Your task to perform on an android device: turn on translation in the chrome app Image 0: 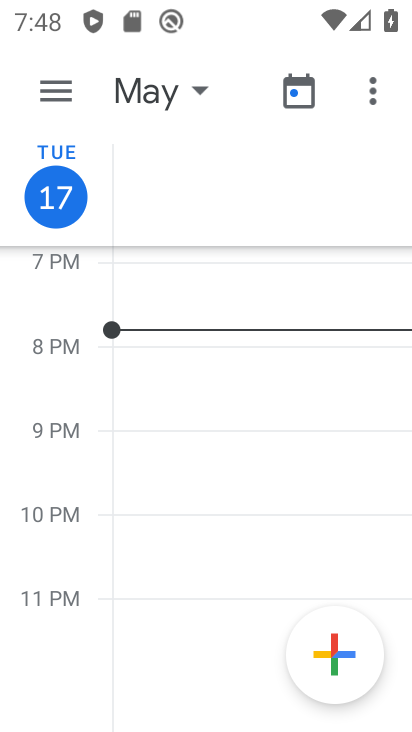
Step 0: press home button
Your task to perform on an android device: turn on translation in the chrome app Image 1: 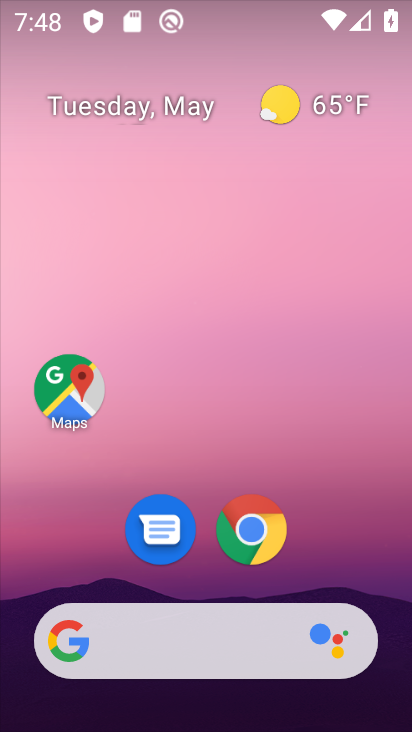
Step 1: click (248, 522)
Your task to perform on an android device: turn on translation in the chrome app Image 2: 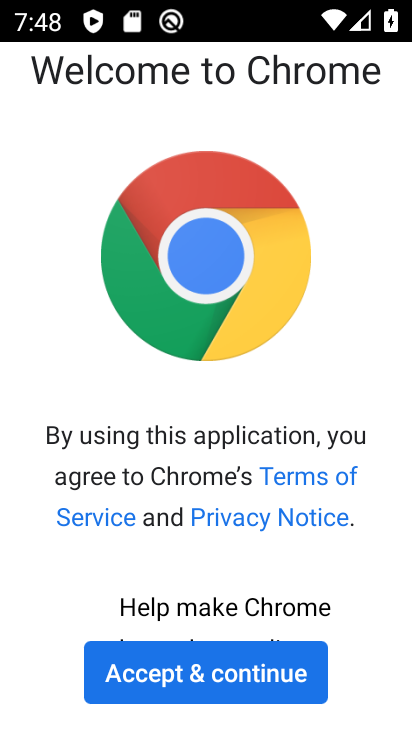
Step 2: click (234, 652)
Your task to perform on an android device: turn on translation in the chrome app Image 3: 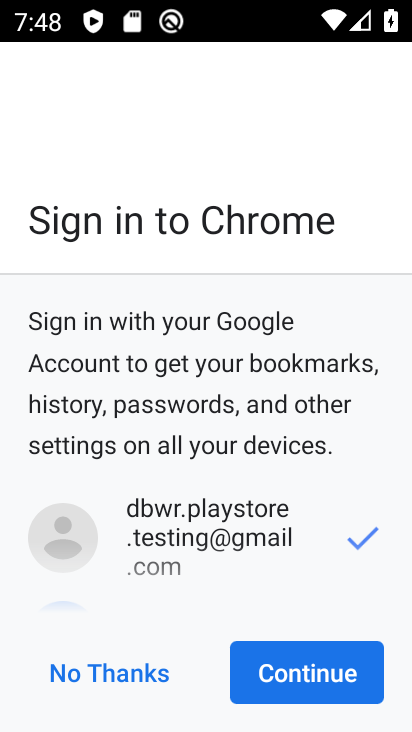
Step 3: click (265, 665)
Your task to perform on an android device: turn on translation in the chrome app Image 4: 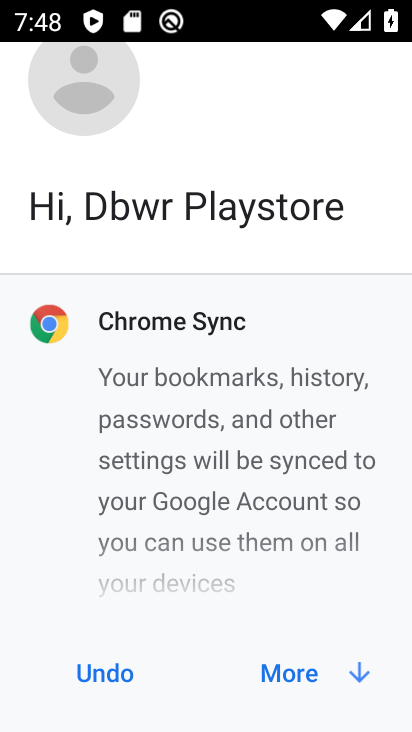
Step 4: click (293, 673)
Your task to perform on an android device: turn on translation in the chrome app Image 5: 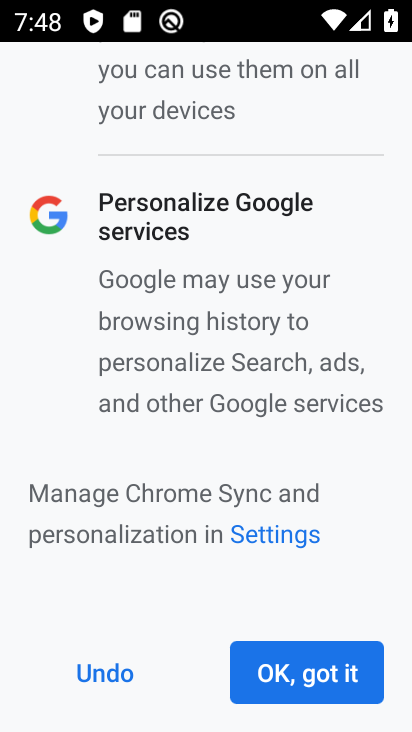
Step 5: click (293, 673)
Your task to perform on an android device: turn on translation in the chrome app Image 6: 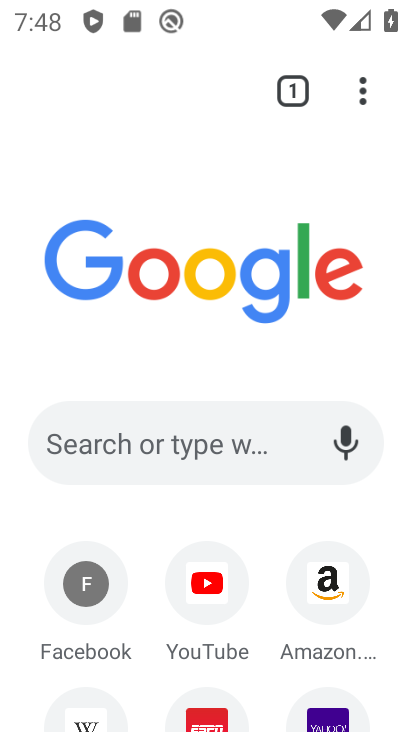
Step 6: click (353, 90)
Your task to perform on an android device: turn on translation in the chrome app Image 7: 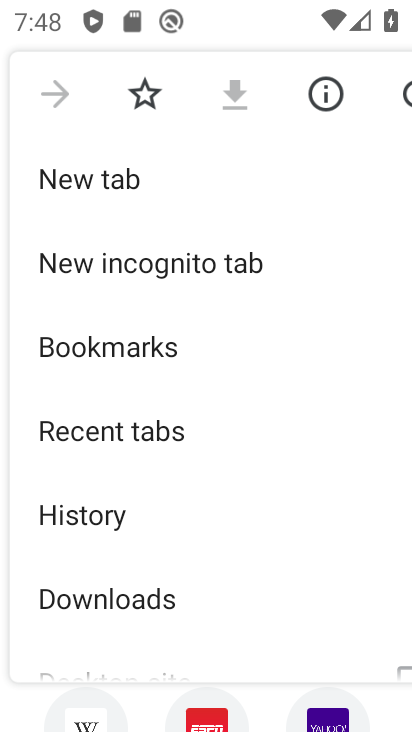
Step 7: drag from (206, 544) to (149, 330)
Your task to perform on an android device: turn on translation in the chrome app Image 8: 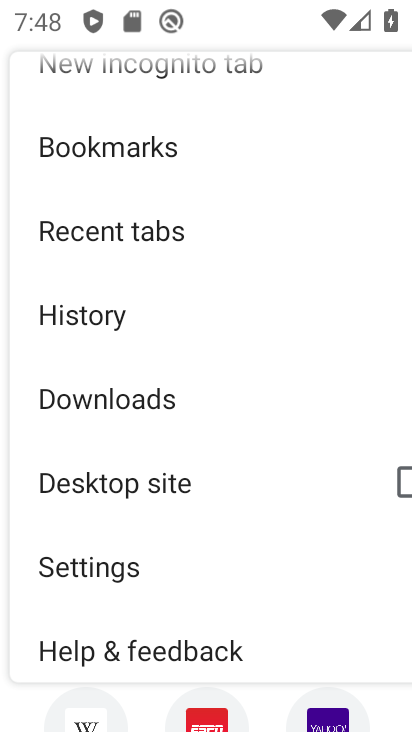
Step 8: click (108, 555)
Your task to perform on an android device: turn on translation in the chrome app Image 9: 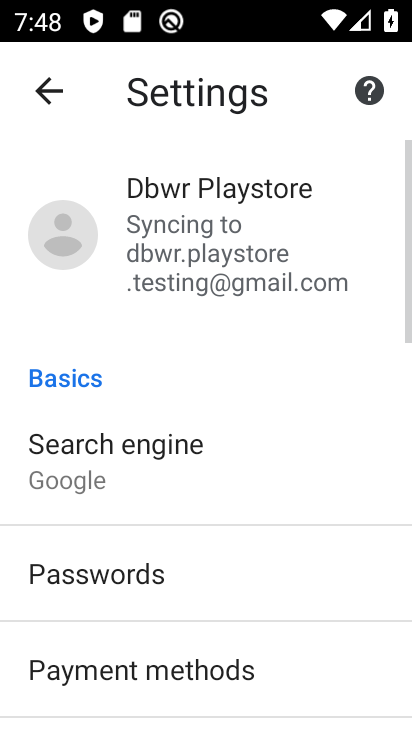
Step 9: drag from (108, 555) to (66, 158)
Your task to perform on an android device: turn on translation in the chrome app Image 10: 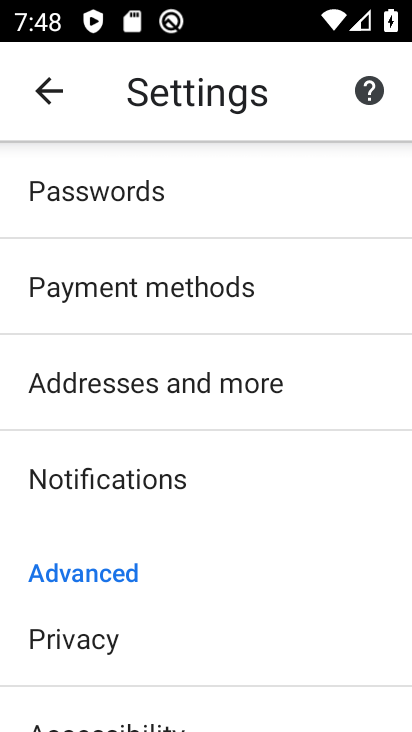
Step 10: drag from (105, 510) to (48, 173)
Your task to perform on an android device: turn on translation in the chrome app Image 11: 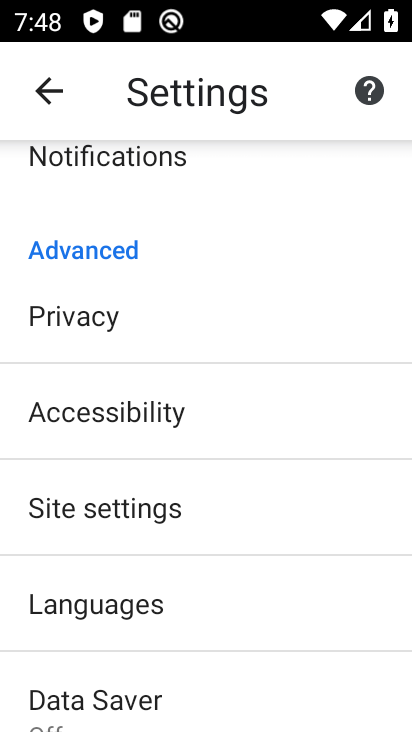
Step 11: click (98, 629)
Your task to perform on an android device: turn on translation in the chrome app Image 12: 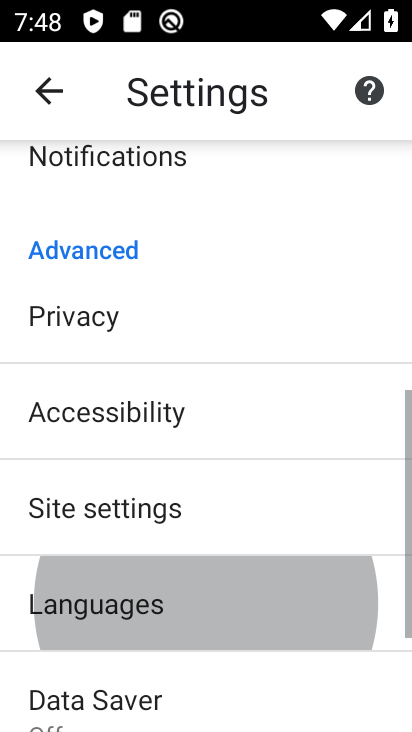
Step 12: click (98, 629)
Your task to perform on an android device: turn on translation in the chrome app Image 13: 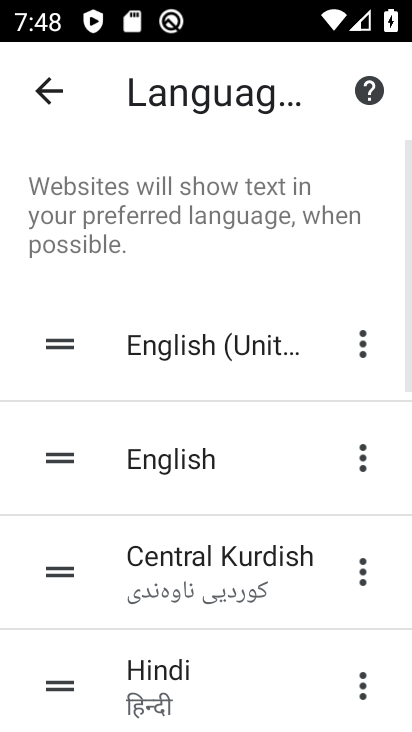
Step 13: drag from (98, 629) to (93, 21)
Your task to perform on an android device: turn on translation in the chrome app Image 14: 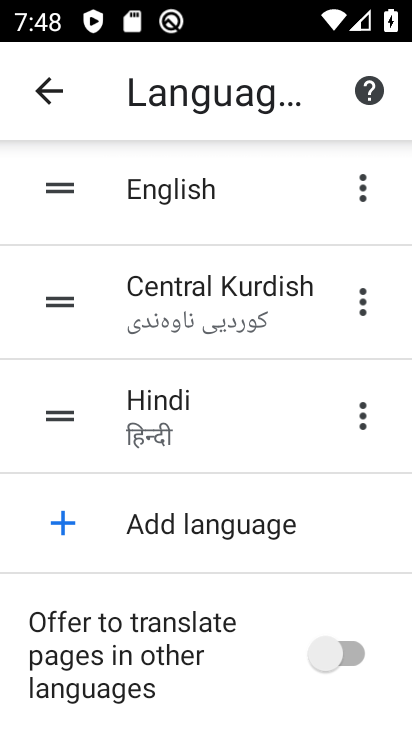
Step 14: click (336, 663)
Your task to perform on an android device: turn on translation in the chrome app Image 15: 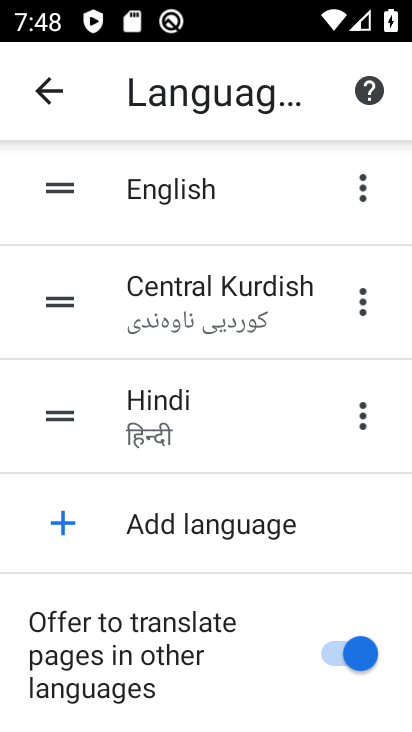
Step 15: task complete